Your task to perform on an android device: Search for seafood restaurants on Google Maps Image 0: 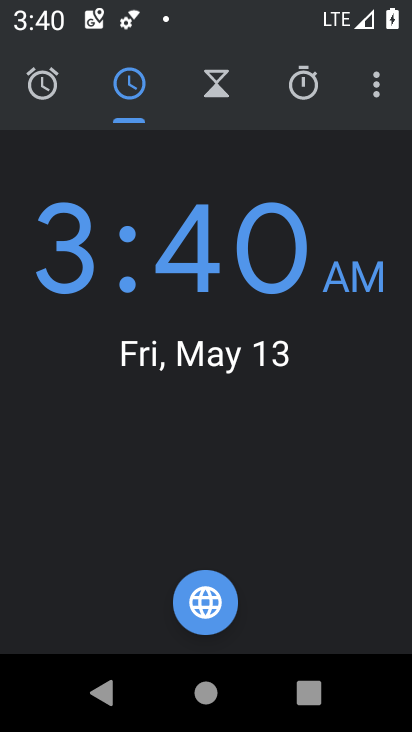
Step 0: press home button
Your task to perform on an android device: Search for seafood restaurants on Google Maps Image 1: 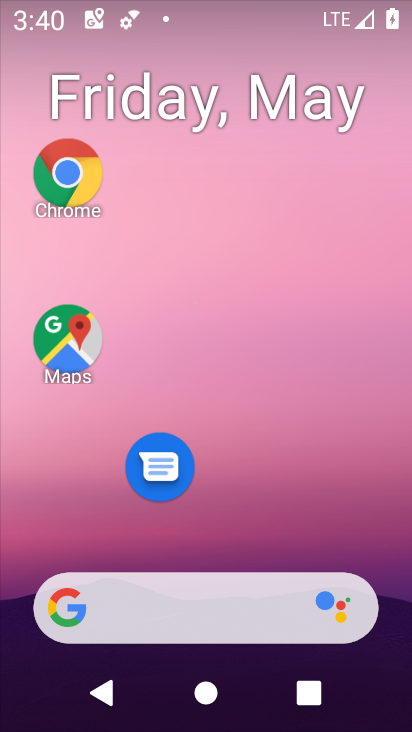
Step 1: click (82, 336)
Your task to perform on an android device: Search for seafood restaurants on Google Maps Image 2: 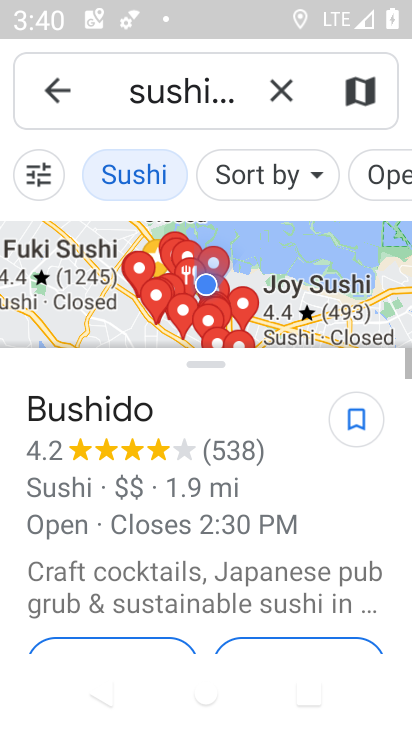
Step 2: click (277, 86)
Your task to perform on an android device: Search for seafood restaurants on Google Maps Image 3: 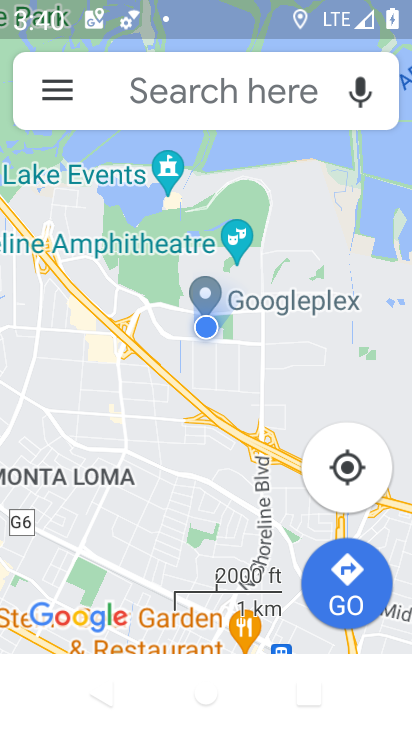
Step 3: click (167, 84)
Your task to perform on an android device: Search for seafood restaurants on Google Maps Image 4: 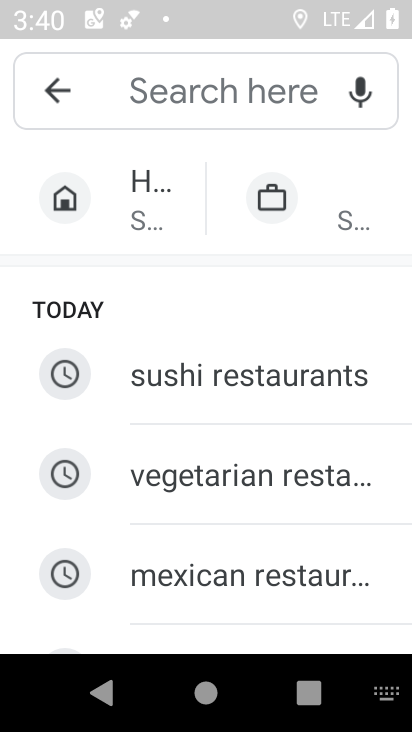
Step 4: drag from (203, 487) to (193, 223)
Your task to perform on an android device: Search for seafood restaurants on Google Maps Image 5: 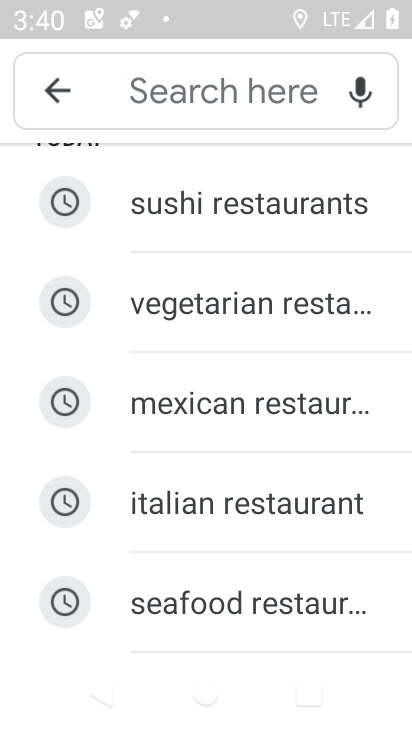
Step 5: click (199, 592)
Your task to perform on an android device: Search for seafood restaurants on Google Maps Image 6: 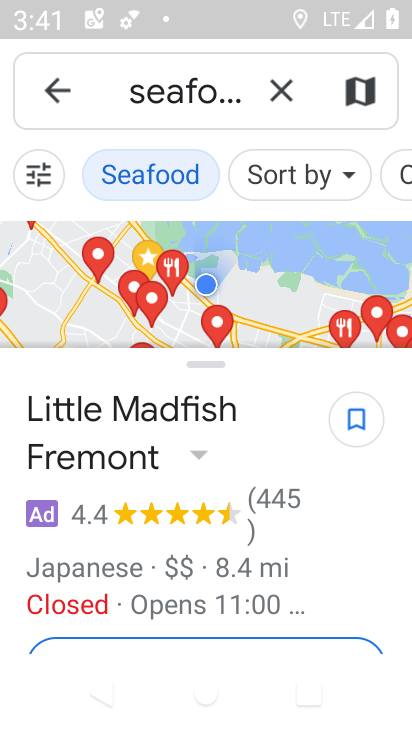
Step 6: task complete